Your task to perform on an android device: Open display settings Image 0: 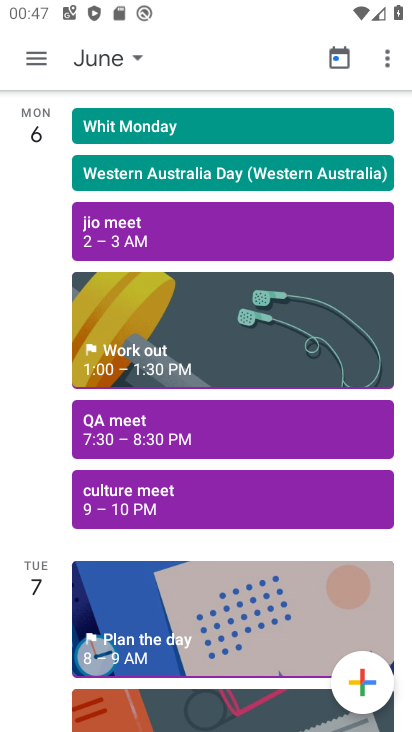
Step 0: press back button
Your task to perform on an android device: Open display settings Image 1: 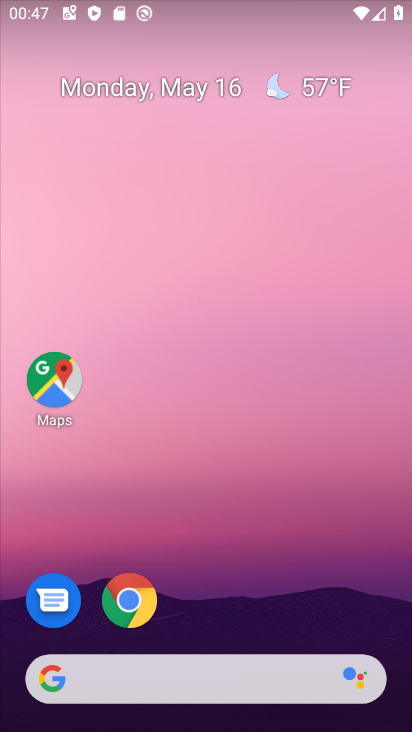
Step 1: drag from (207, 629) to (297, 92)
Your task to perform on an android device: Open display settings Image 2: 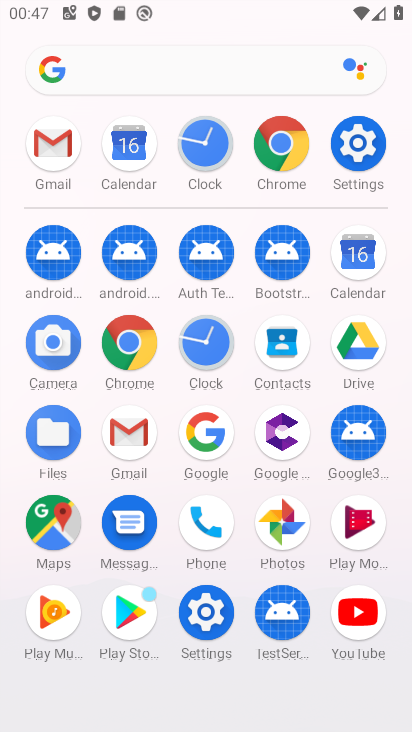
Step 2: click (356, 162)
Your task to perform on an android device: Open display settings Image 3: 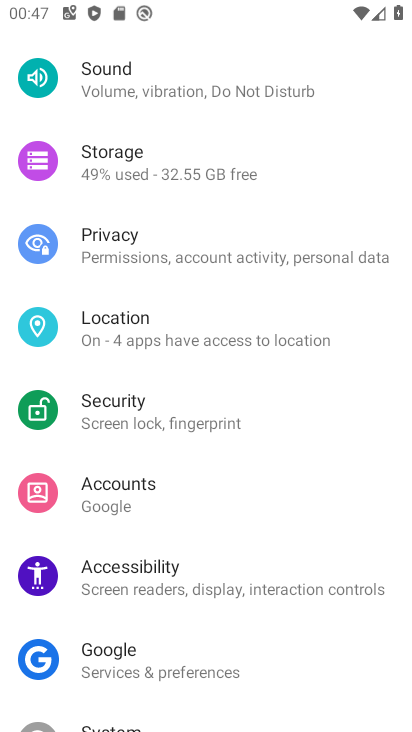
Step 3: drag from (221, 152) to (159, 597)
Your task to perform on an android device: Open display settings Image 4: 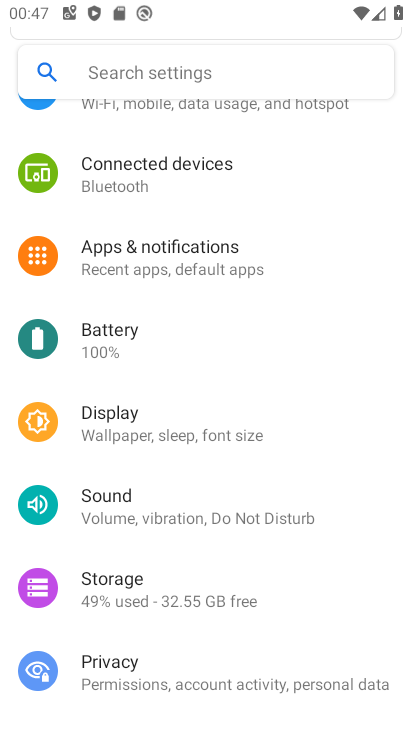
Step 4: drag from (186, 289) to (168, 512)
Your task to perform on an android device: Open display settings Image 5: 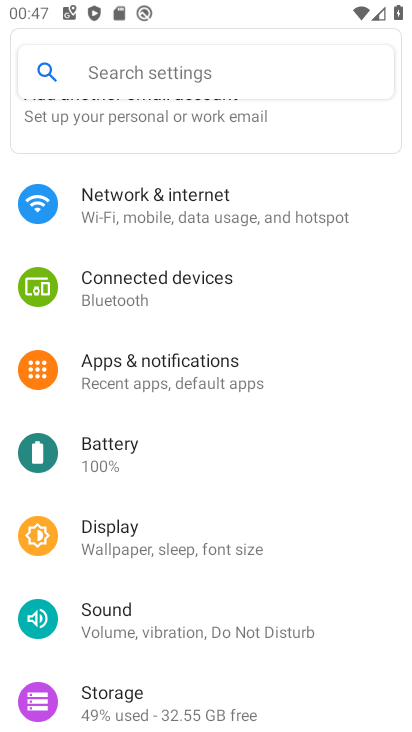
Step 5: click (132, 538)
Your task to perform on an android device: Open display settings Image 6: 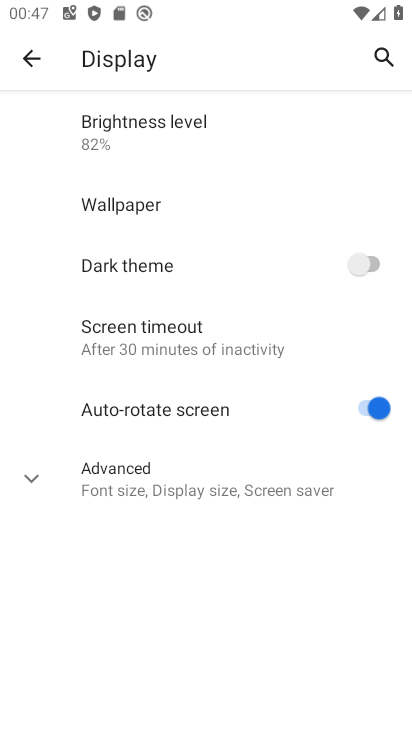
Step 6: task complete